Your task to perform on an android device: turn on priority inbox in the gmail app Image 0: 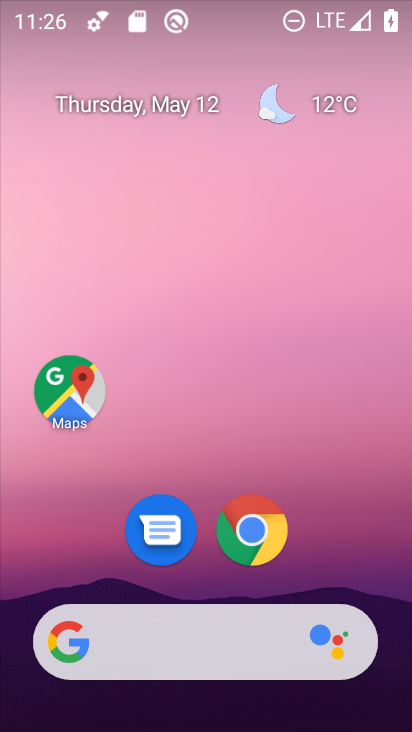
Step 0: drag from (139, 644) to (298, 138)
Your task to perform on an android device: turn on priority inbox in the gmail app Image 1: 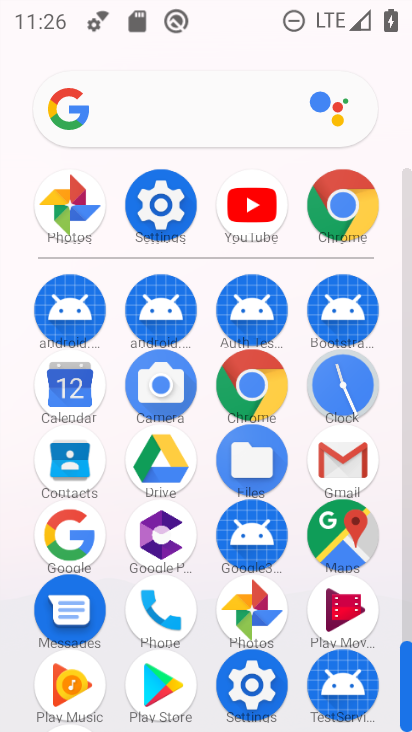
Step 1: click (337, 456)
Your task to perform on an android device: turn on priority inbox in the gmail app Image 2: 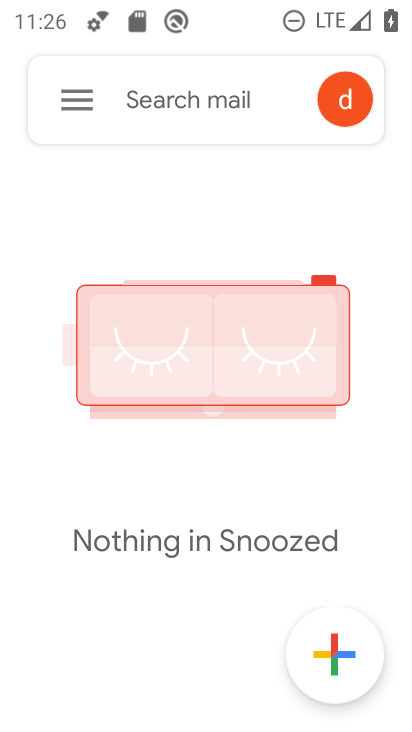
Step 2: click (74, 98)
Your task to perform on an android device: turn on priority inbox in the gmail app Image 3: 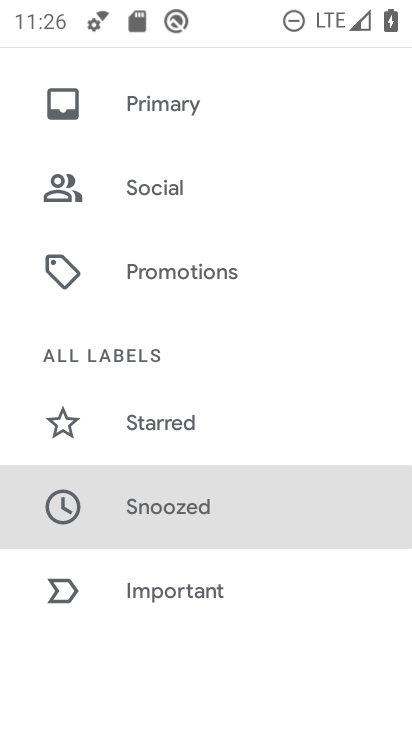
Step 3: drag from (210, 646) to (324, 138)
Your task to perform on an android device: turn on priority inbox in the gmail app Image 4: 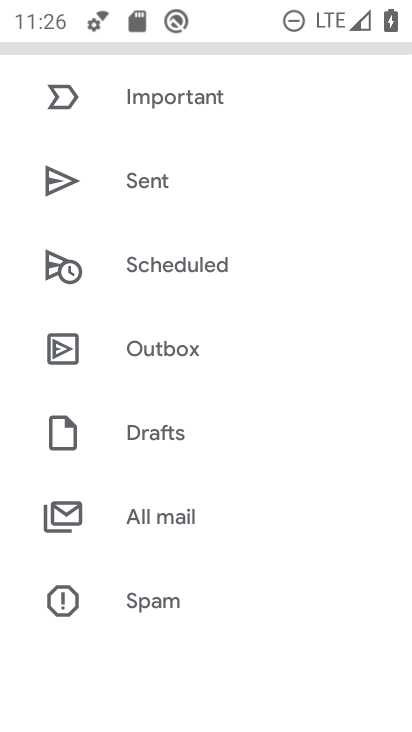
Step 4: drag from (198, 640) to (343, 182)
Your task to perform on an android device: turn on priority inbox in the gmail app Image 5: 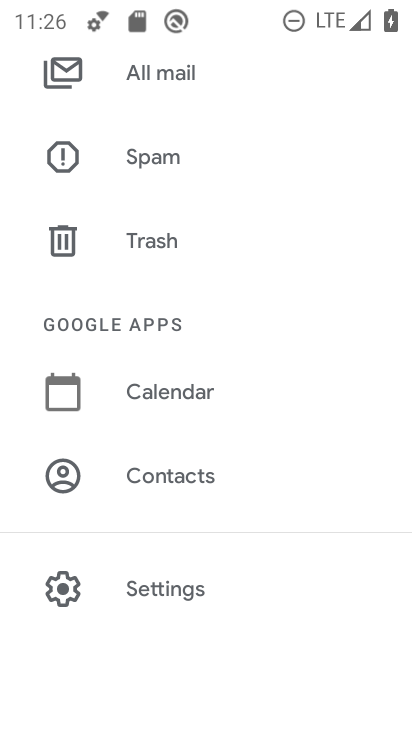
Step 5: click (185, 591)
Your task to perform on an android device: turn on priority inbox in the gmail app Image 6: 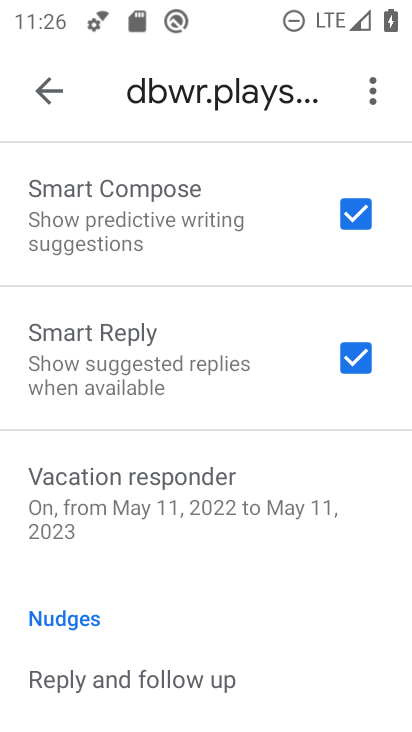
Step 6: drag from (261, 180) to (90, 629)
Your task to perform on an android device: turn on priority inbox in the gmail app Image 7: 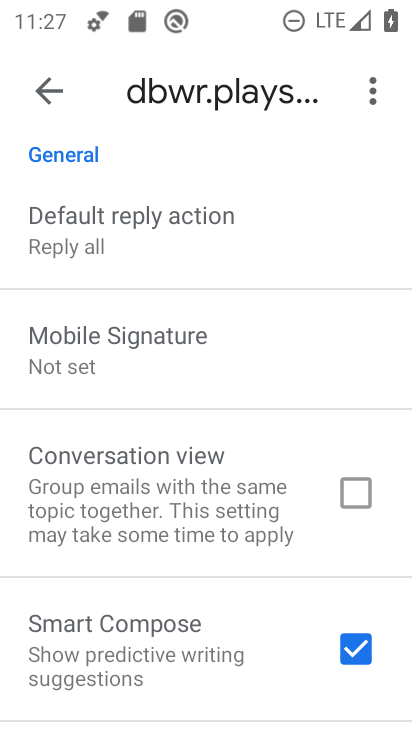
Step 7: drag from (266, 162) to (188, 564)
Your task to perform on an android device: turn on priority inbox in the gmail app Image 8: 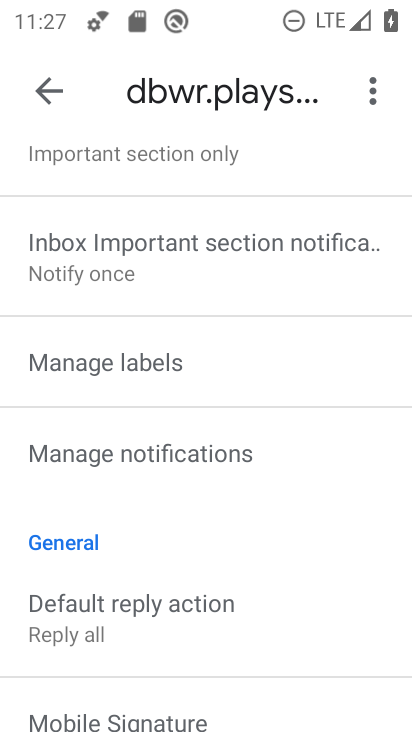
Step 8: drag from (207, 199) to (151, 569)
Your task to perform on an android device: turn on priority inbox in the gmail app Image 9: 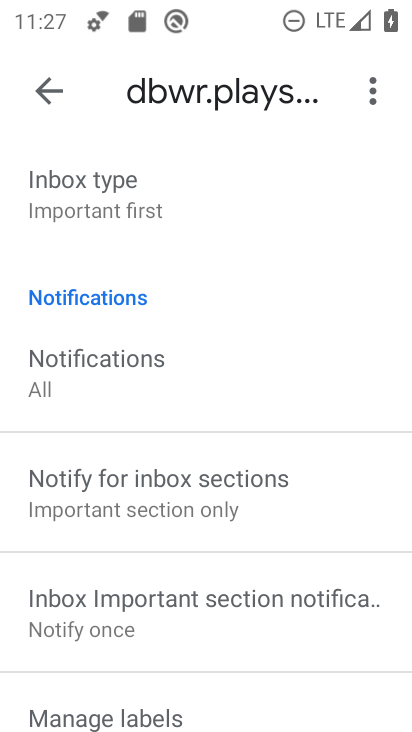
Step 9: drag from (229, 217) to (123, 590)
Your task to perform on an android device: turn on priority inbox in the gmail app Image 10: 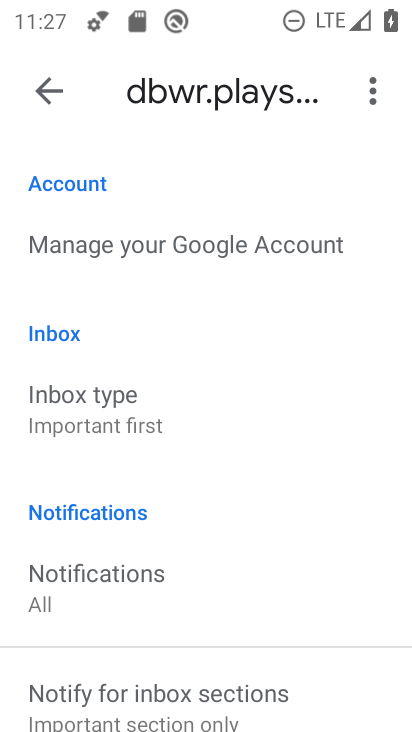
Step 10: click (110, 412)
Your task to perform on an android device: turn on priority inbox in the gmail app Image 11: 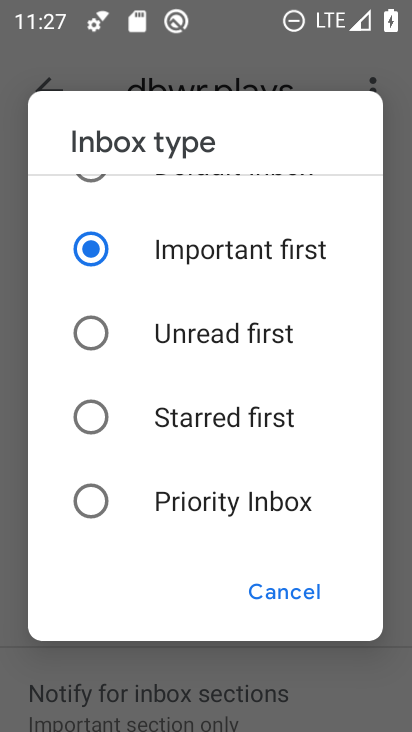
Step 11: click (99, 501)
Your task to perform on an android device: turn on priority inbox in the gmail app Image 12: 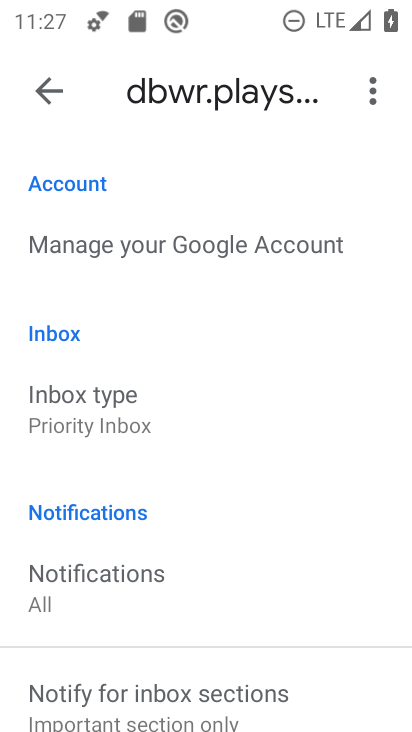
Step 12: task complete